Your task to perform on an android device: Open sound settings Image 0: 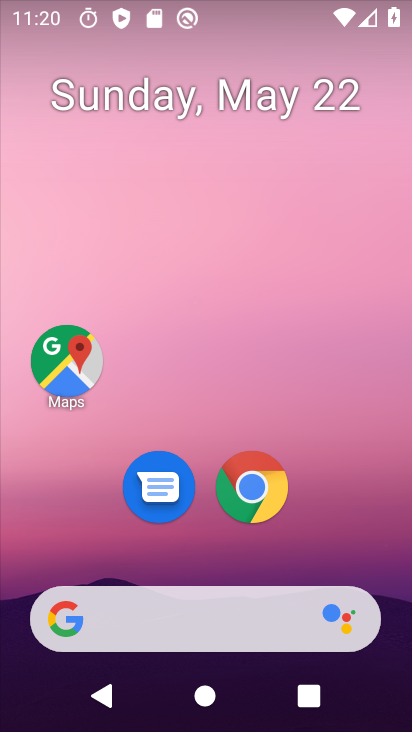
Step 0: drag from (336, 523) to (340, 118)
Your task to perform on an android device: Open sound settings Image 1: 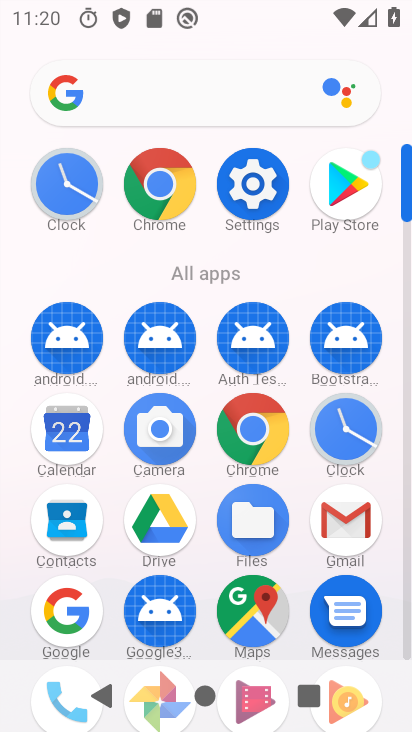
Step 1: click (240, 195)
Your task to perform on an android device: Open sound settings Image 2: 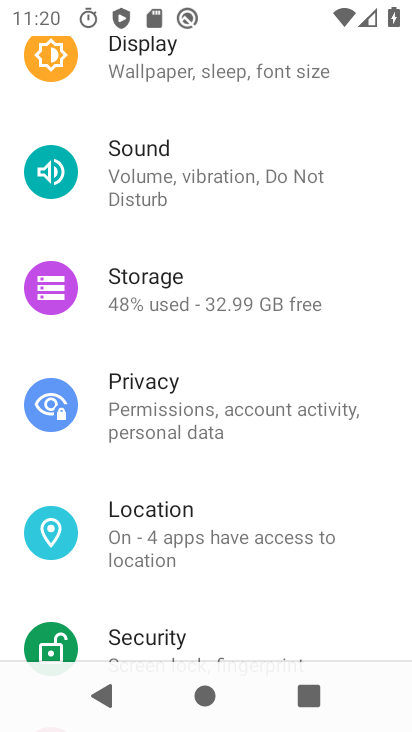
Step 2: click (217, 183)
Your task to perform on an android device: Open sound settings Image 3: 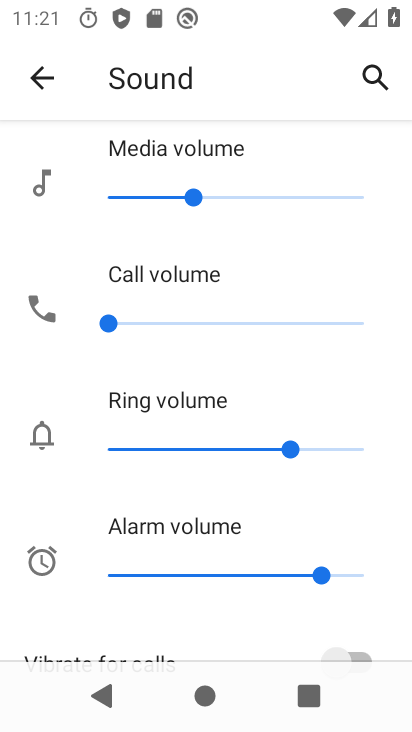
Step 3: task complete